Your task to perform on an android device: Open Chrome and go to settings Image 0: 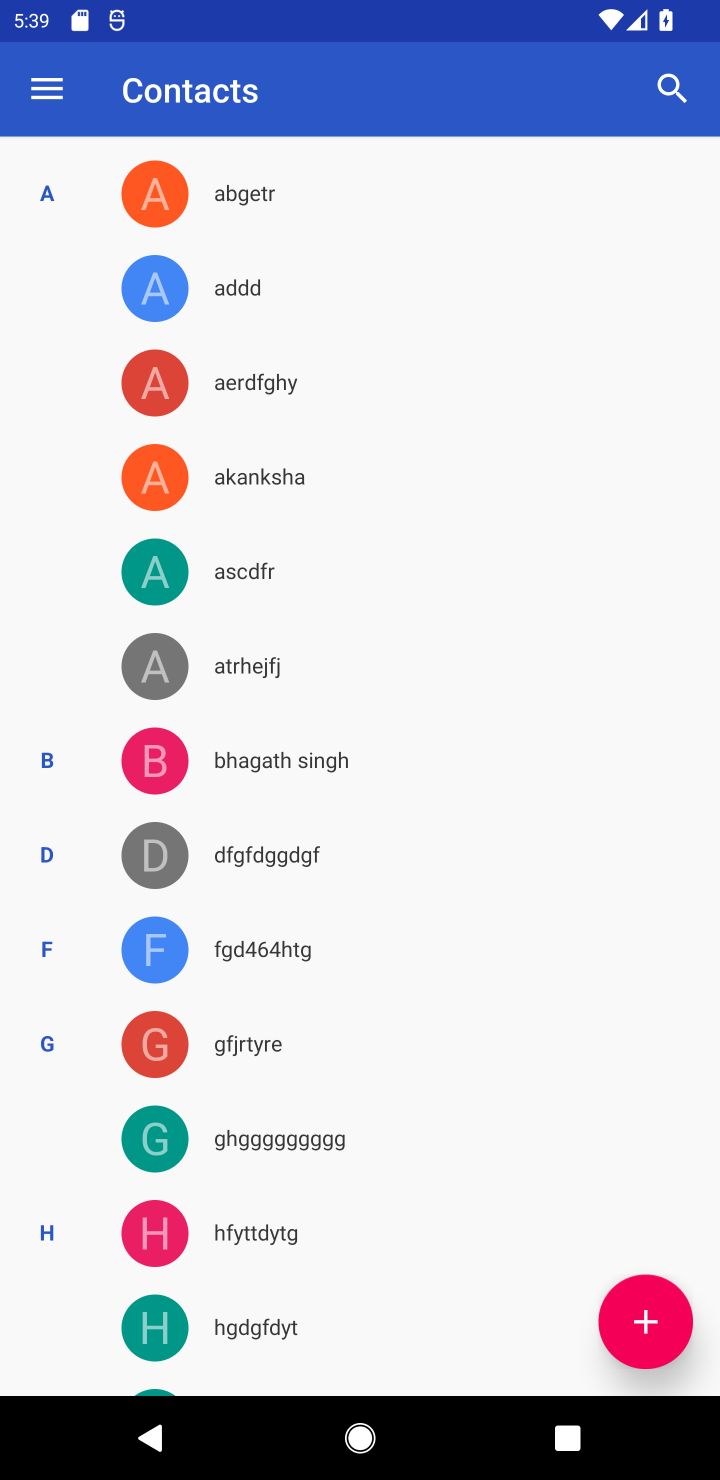
Step 0: press home button
Your task to perform on an android device: Open Chrome and go to settings Image 1: 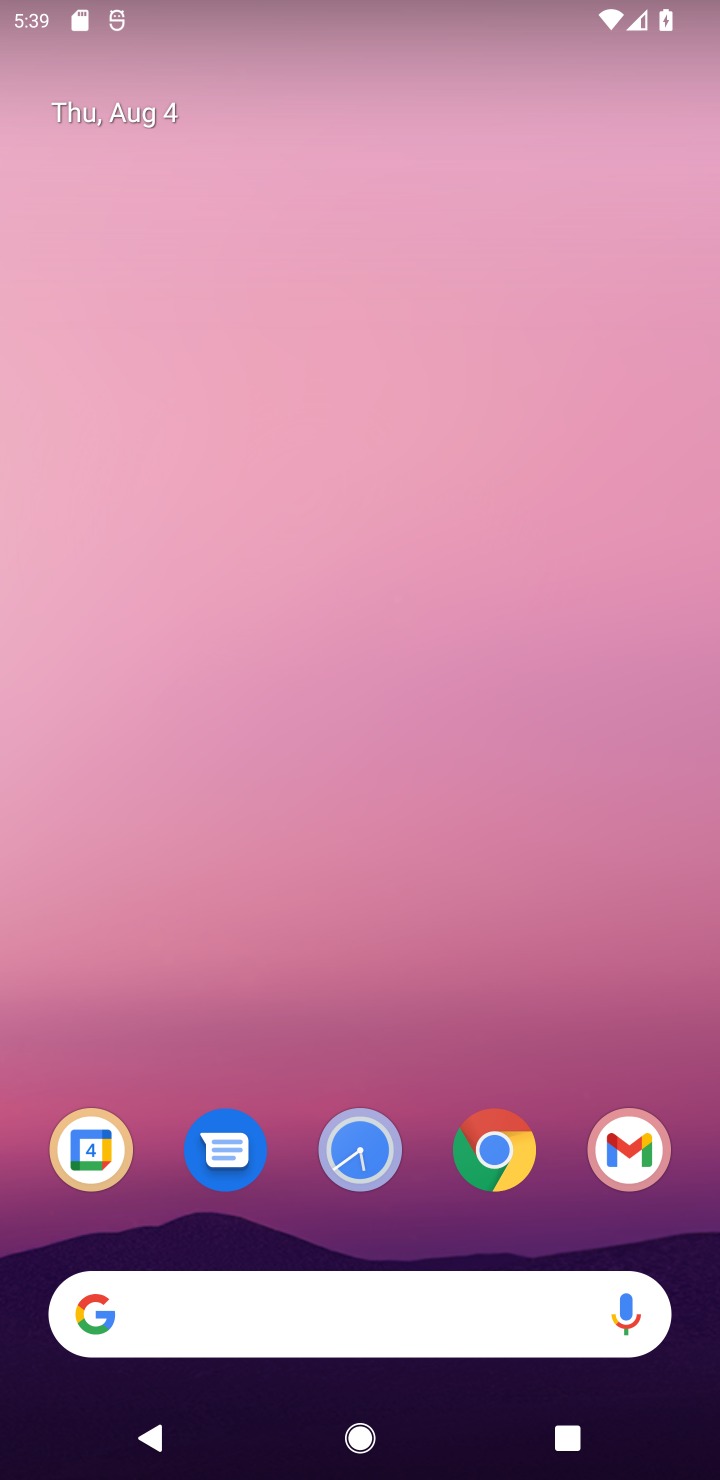
Step 1: click (497, 1156)
Your task to perform on an android device: Open Chrome and go to settings Image 2: 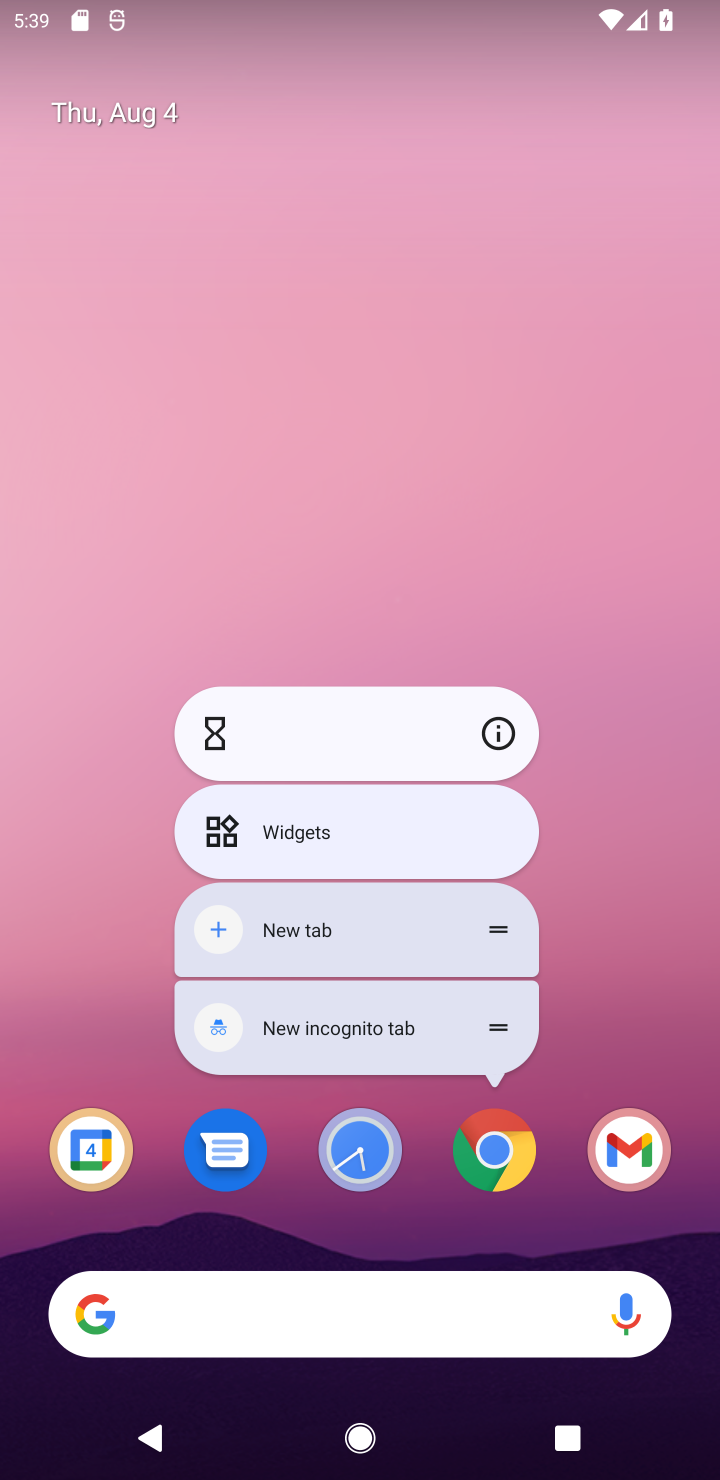
Step 2: click (491, 1142)
Your task to perform on an android device: Open Chrome and go to settings Image 3: 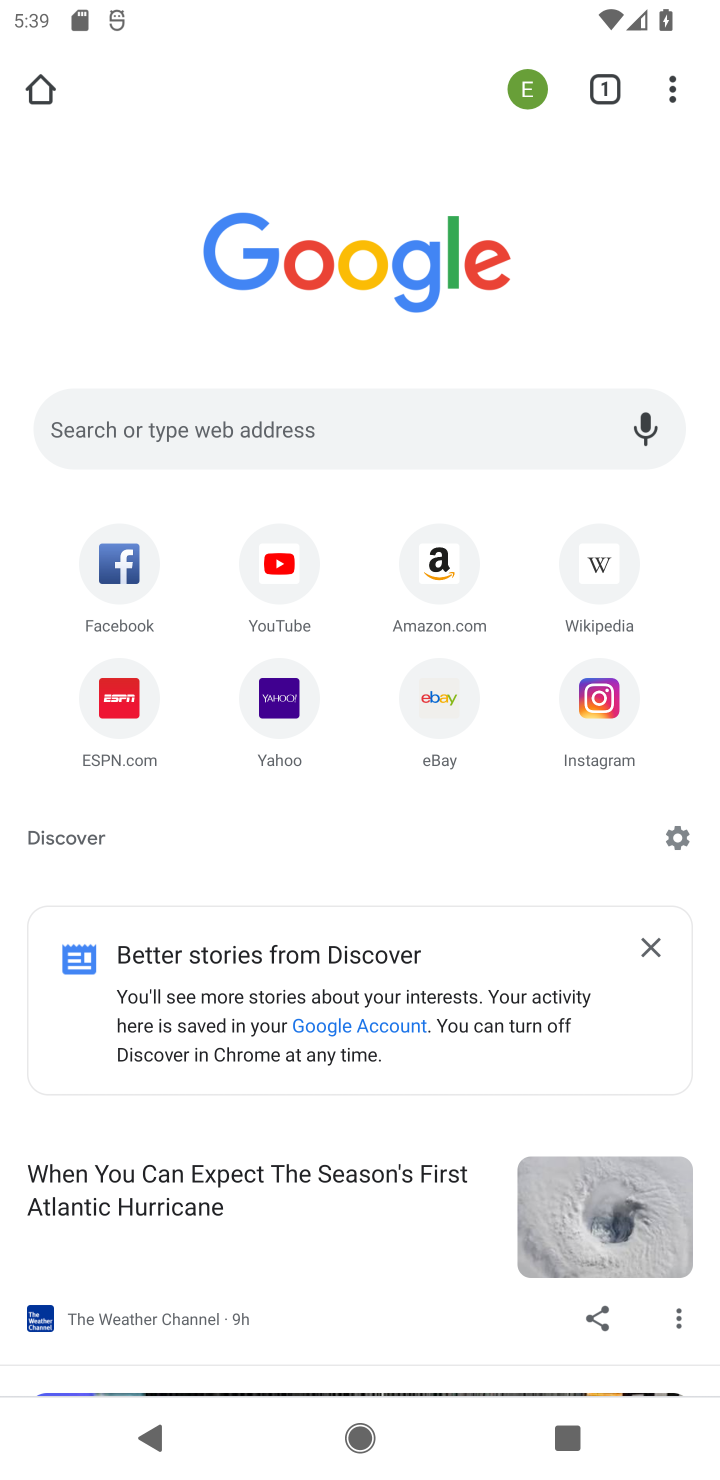
Step 3: click (678, 79)
Your task to perform on an android device: Open Chrome and go to settings Image 4: 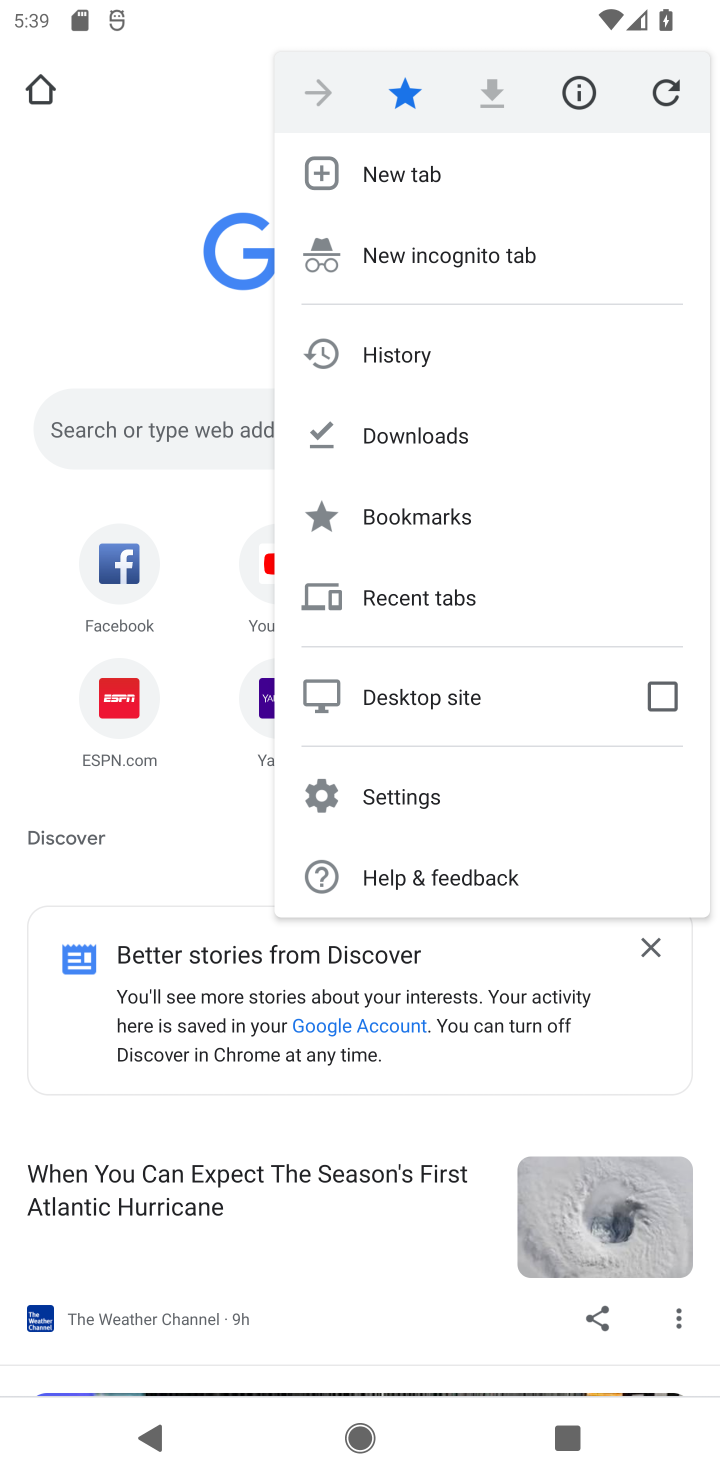
Step 4: click (429, 805)
Your task to perform on an android device: Open Chrome and go to settings Image 5: 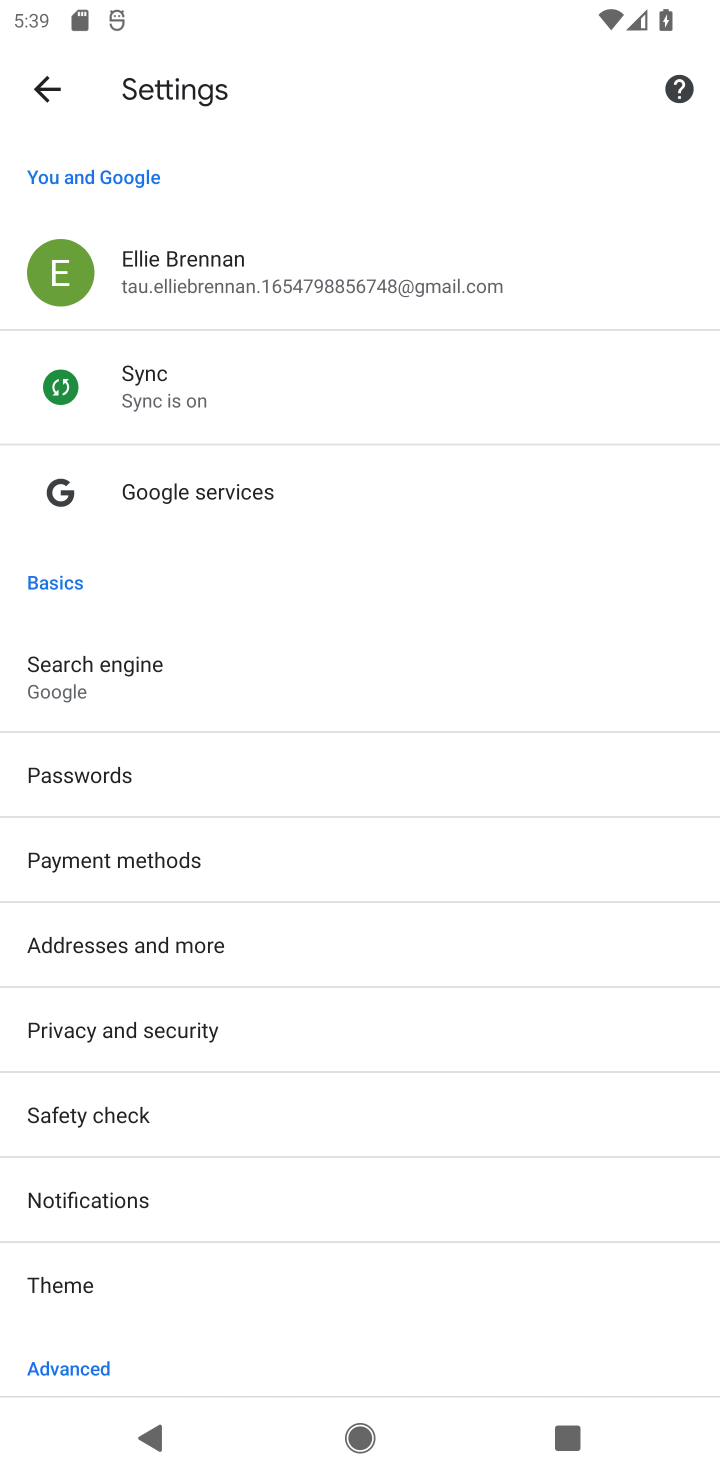
Step 5: task complete